Your task to perform on an android device: Open the calendar and show me this week's events Image 0: 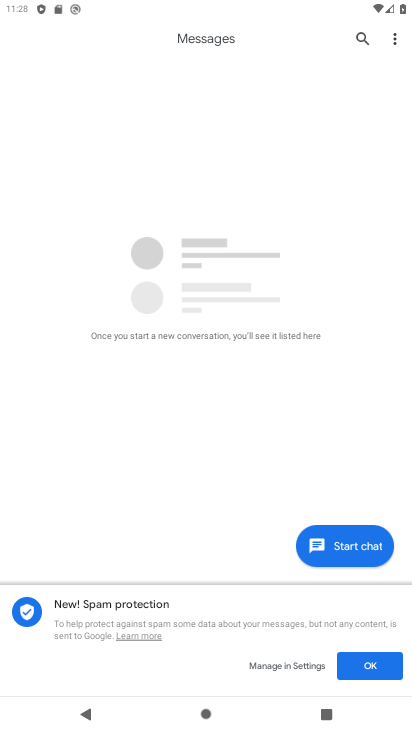
Step 0: drag from (227, 634) to (261, 208)
Your task to perform on an android device: Open the calendar and show me this week's events Image 1: 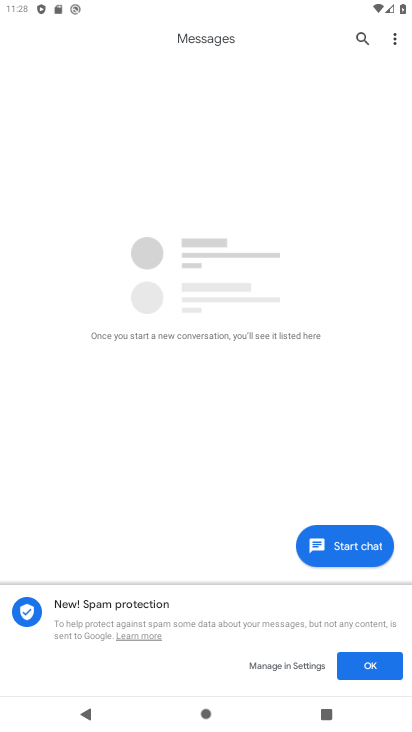
Step 1: press home button
Your task to perform on an android device: Open the calendar and show me this week's events Image 2: 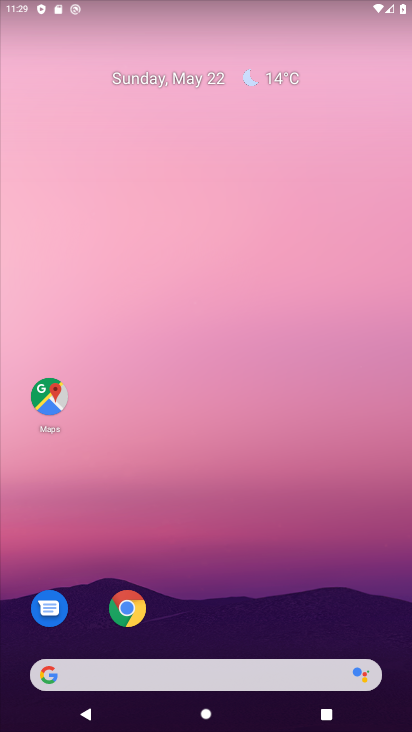
Step 2: drag from (308, 621) to (301, 282)
Your task to perform on an android device: Open the calendar and show me this week's events Image 3: 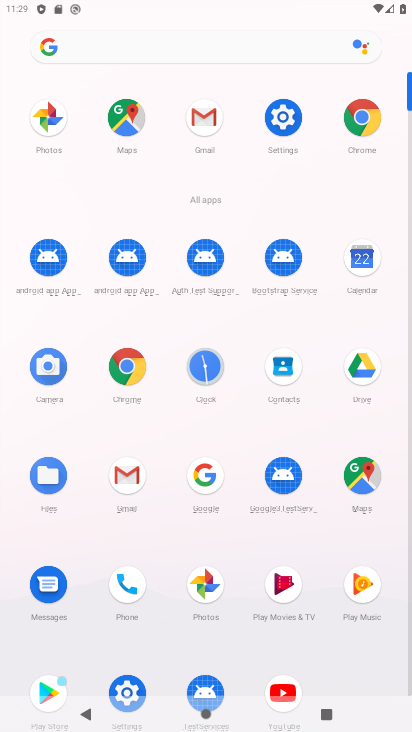
Step 3: click (371, 261)
Your task to perform on an android device: Open the calendar and show me this week's events Image 4: 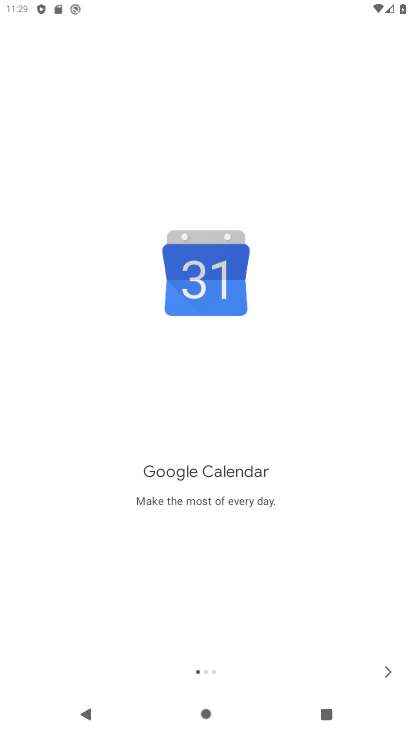
Step 4: click (391, 672)
Your task to perform on an android device: Open the calendar and show me this week's events Image 5: 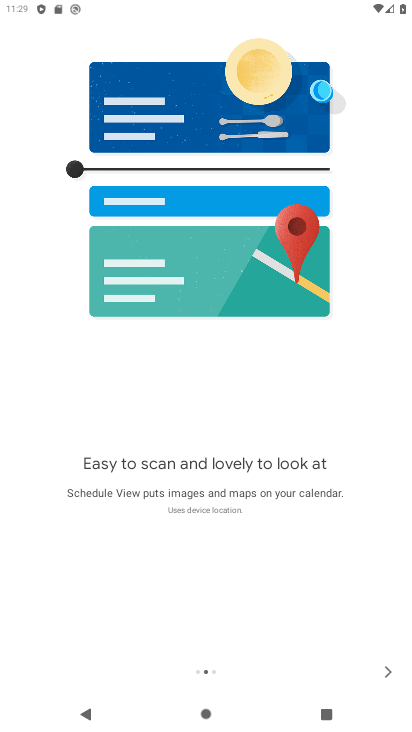
Step 5: click (391, 672)
Your task to perform on an android device: Open the calendar and show me this week's events Image 6: 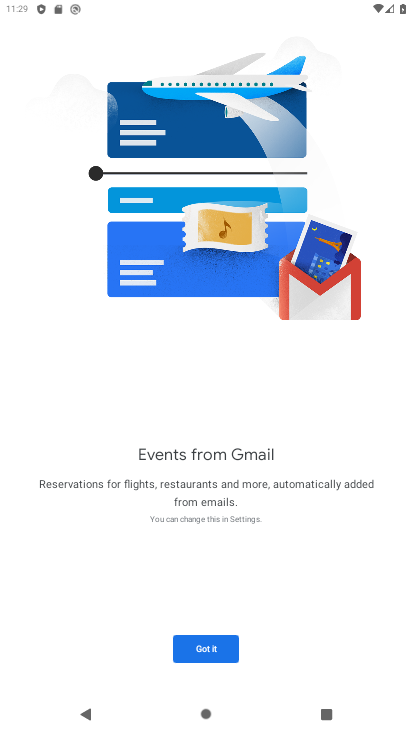
Step 6: click (210, 645)
Your task to perform on an android device: Open the calendar and show me this week's events Image 7: 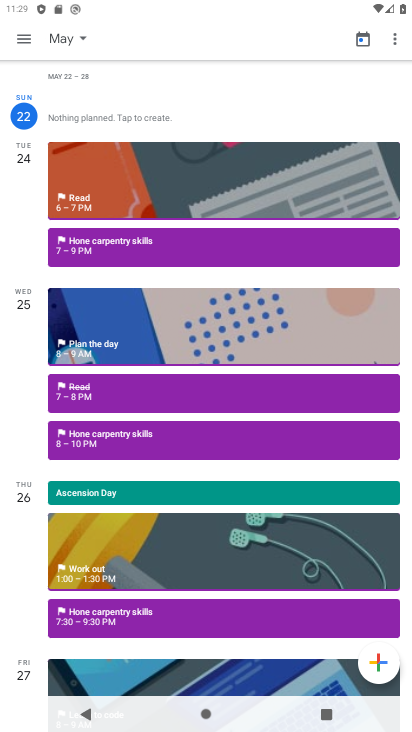
Step 7: click (24, 42)
Your task to perform on an android device: Open the calendar and show me this week's events Image 8: 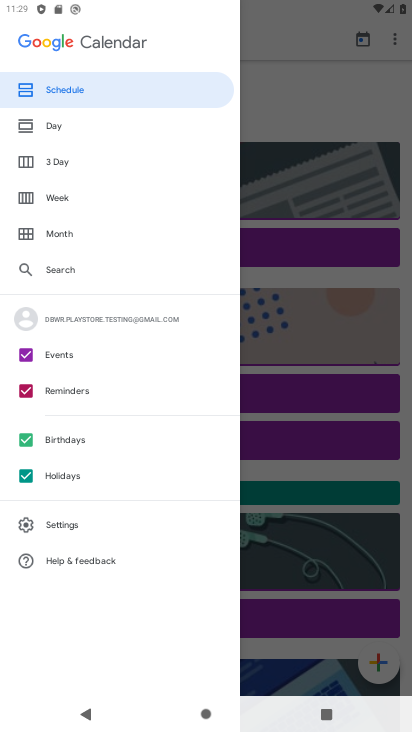
Step 8: click (25, 476)
Your task to perform on an android device: Open the calendar and show me this week's events Image 9: 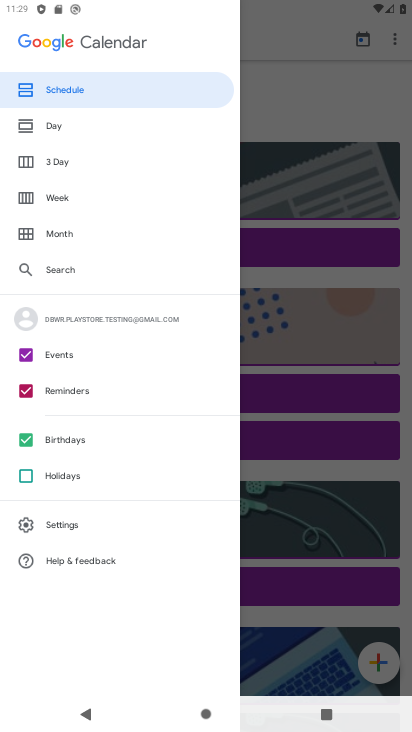
Step 9: click (25, 445)
Your task to perform on an android device: Open the calendar and show me this week's events Image 10: 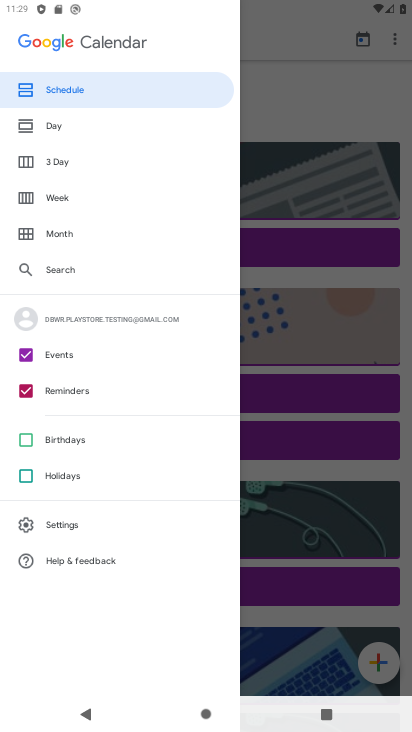
Step 10: click (25, 386)
Your task to perform on an android device: Open the calendar and show me this week's events Image 11: 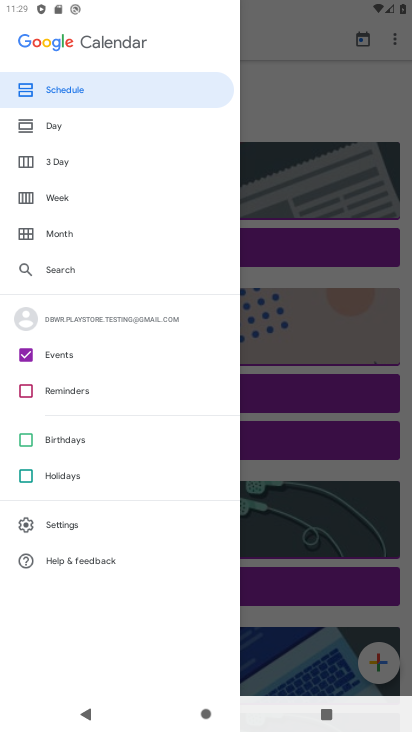
Step 11: click (119, 199)
Your task to perform on an android device: Open the calendar and show me this week's events Image 12: 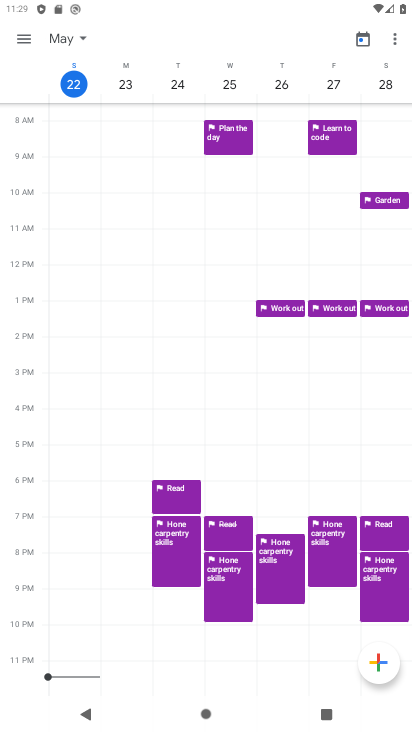
Step 12: task complete